Your task to perform on an android device: Open calendar and show me the first week of next month Image 0: 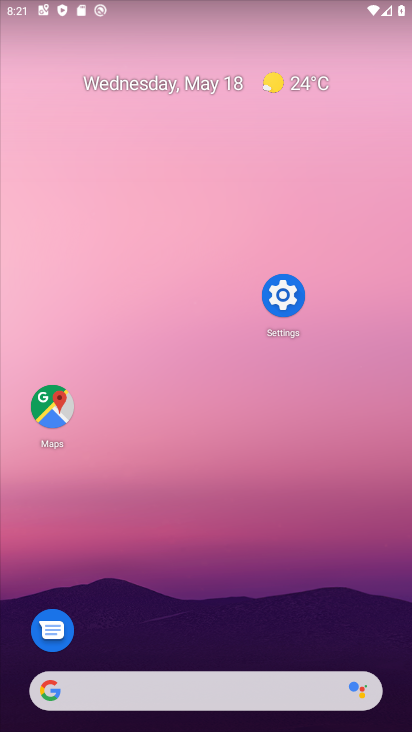
Step 0: drag from (228, 604) to (236, 158)
Your task to perform on an android device: Open calendar and show me the first week of next month Image 1: 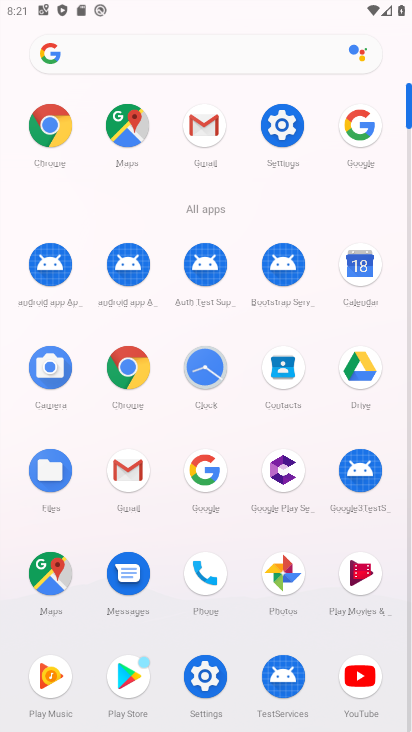
Step 1: click (365, 271)
Your task to perform on an android device: Open calendar and show me the first week of next month Image 2: 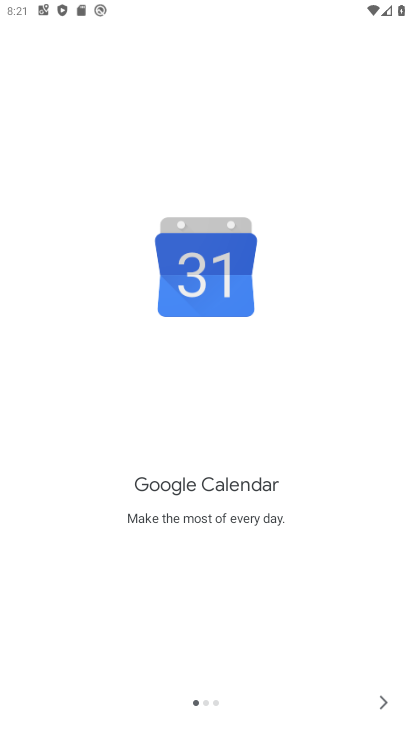
Step 2: click (379, 702)
Your task to perform on an android device: Open calendar and show me the first week of next month Image 3: 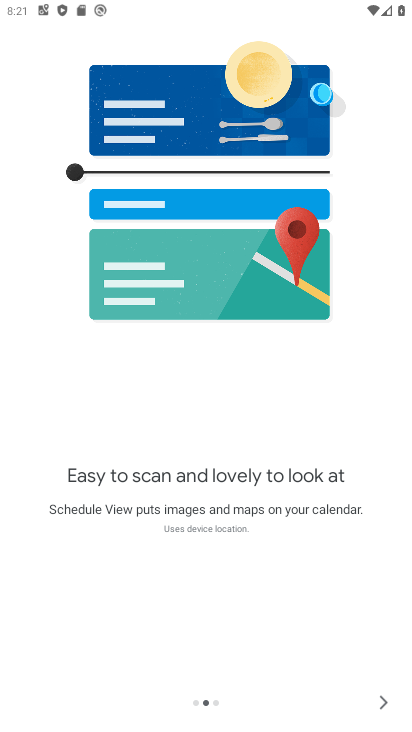
Step 3: click (379, 702)
Your task to perform on an android device: Open calendar and show me the first week of next month Image 4: 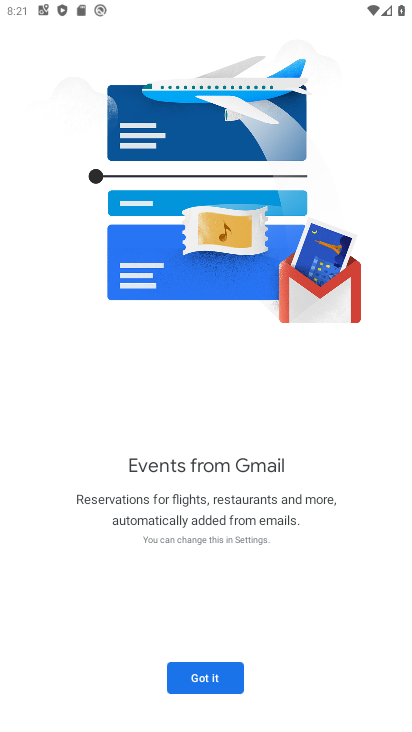
Step 4: click (227, 678)
Your task to perform on an android device: Open calendar and show me the first week of next month Image 5: 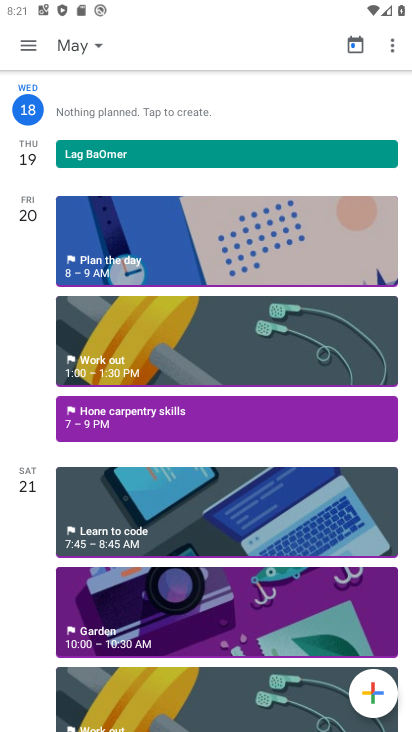
Step 5: click (82, 38)
Your task to perform on an android device: Open calendar and show me the first week of next month Image 6: 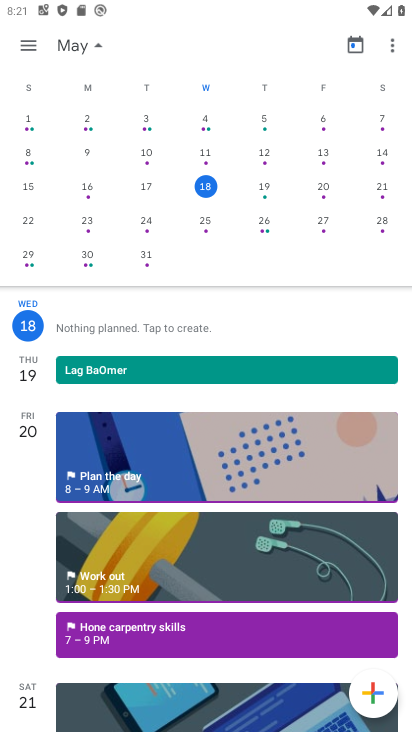
Step 6: drag from (382, 220) to (7, 211)
Your task to perform on an android device: Open calendar and show me the first week of next month Image 7: 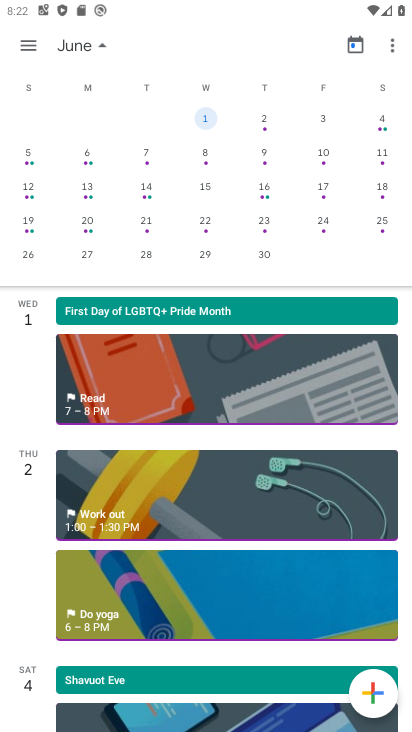
Step 7: click (204, 117)
Your task to perform on an android device: Open calendar and show me the first week of next month Image 8: 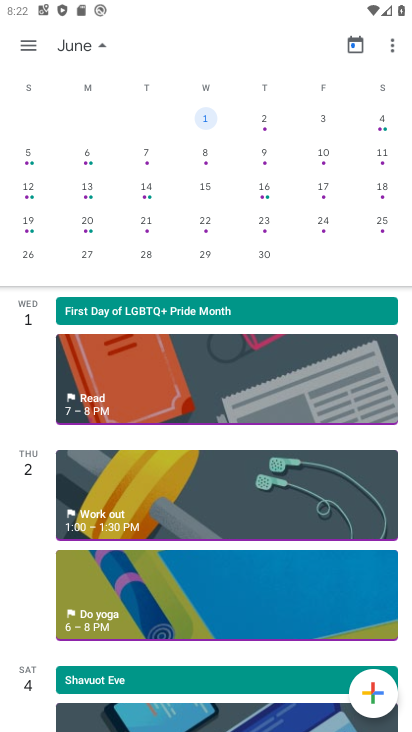
Step 8: task complete